Your task to perform on an android device: Go to CNN.com Image 0: 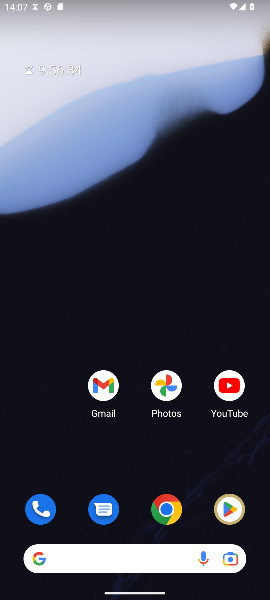
Step 0: press home button
Your task to perform on an android device: Go to CNN.com Image 1: 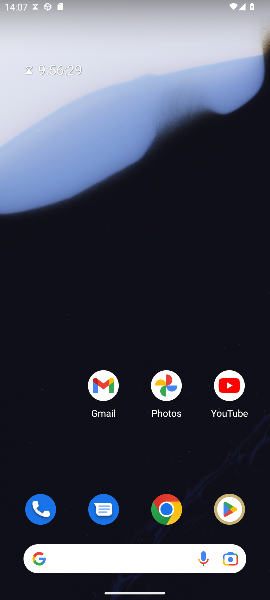
Step 1: press home button
Your task to perform on an android device: Go to CNN.com Image 2: 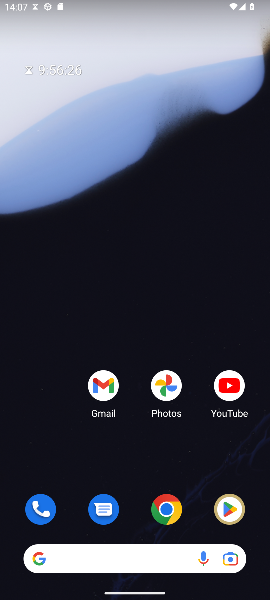
Step 2: drag from (142, 516) to (142, 163)
Your task to perform on an android device: Go to CNN.com Image 3: 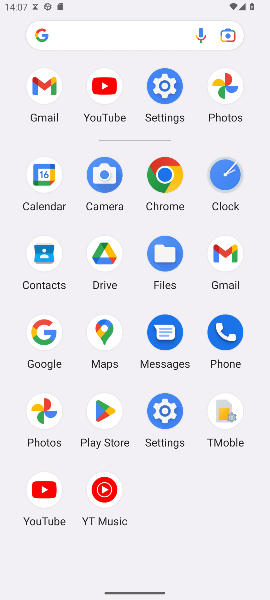
Step 3: click (47, 342)
Your task to perform on an android device: Go to CNN.com Image 4: 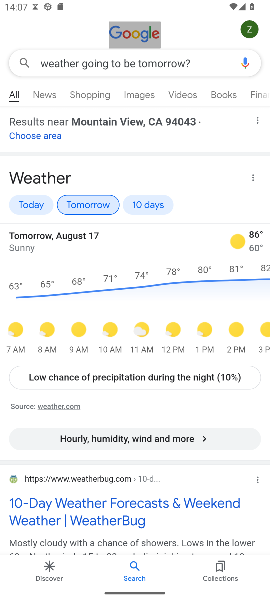
Step 4: click (207, 54)
Your task to perform on an android device: Go to CNN.com Image 5: 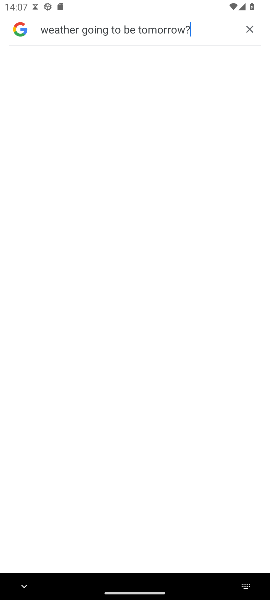
Step 5: click (247, 31)
Your task to perform on an android device: Go to CNN.com Image 6: 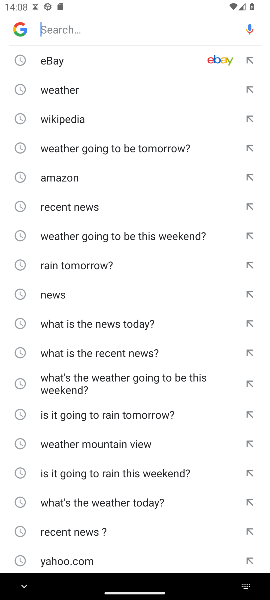
Step 6: type "CNN.com"
Your task to perform on an android device: Go to CNN.com Image 7: 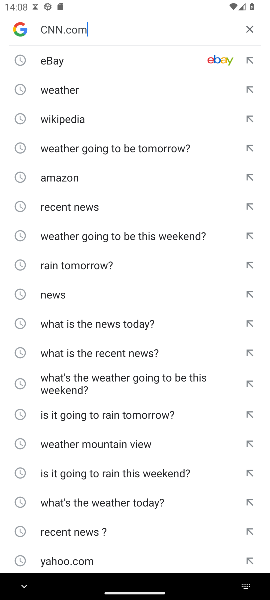
Step 7: press enter
Your task to perform on an android device: Go to CNN.com Image 8: 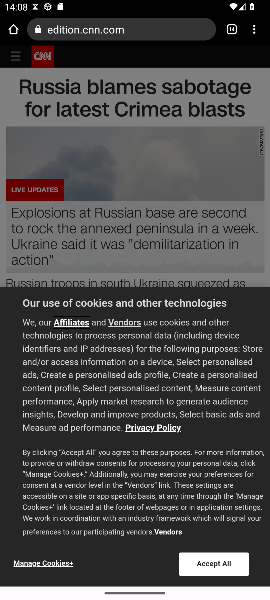
Step 8: task complete